Your task to perform on an android device: check data usage Image 0: 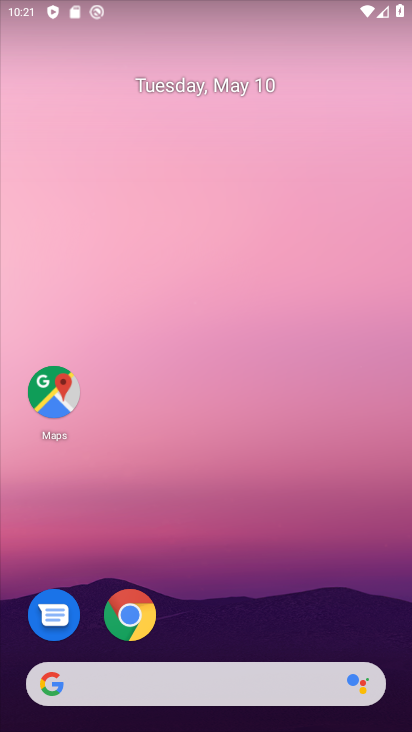
Step 0: drag from (254, 565) to (263, 476)
Your task to perform on an android device: check data usage Image 1: 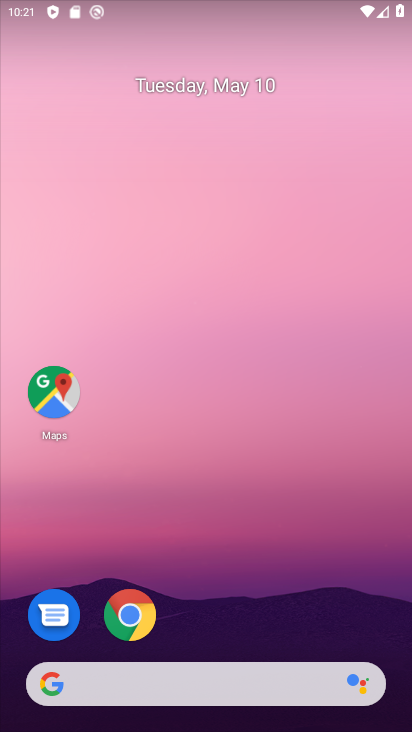
Step 1: drag from (273, 578) to (319, 39)
Your task to perform on an android device: check data usage Image 2: 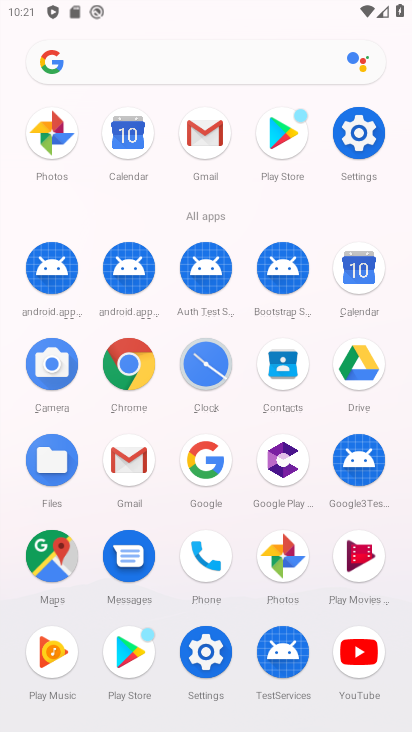
Step 2: click (361, 135)
Your task to perform on an android device: check data usage Image 3: 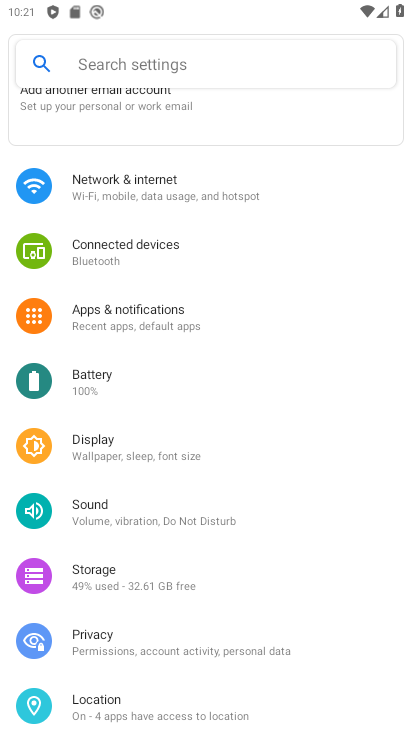
Step 3: click (187, 193)
Your task to perform on an android device: check data usage Image 4: 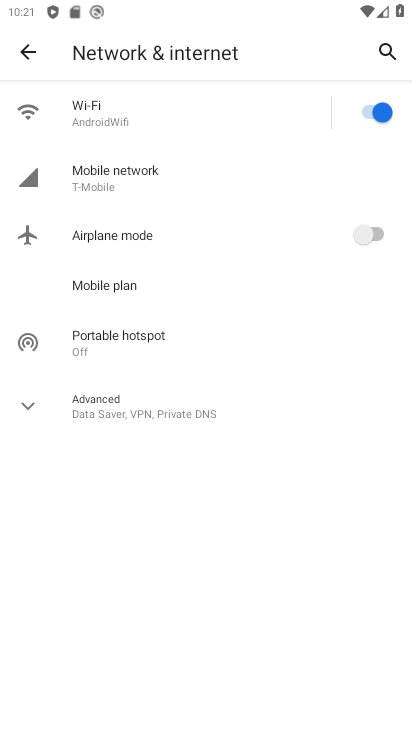
Step 4: click (134, 183)
Your task to perform on an android device: check data usage Image 5: 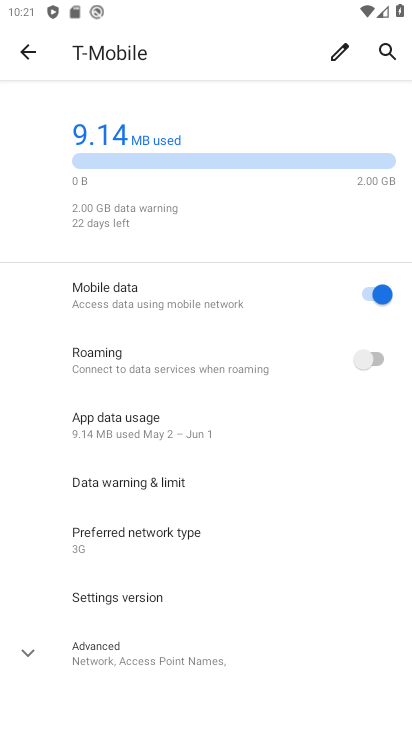
Step 5: task complete